Your task to perform on an android device: Add razer kraken to the cart on bestbuy.com, then select checkout. Image 0: 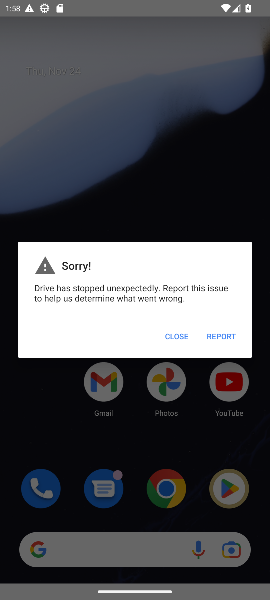
Step 0: press home button
Your task to perform on an android device: Add razer kraken to the cart on bestbuy.com, then select checkout. Image 1: 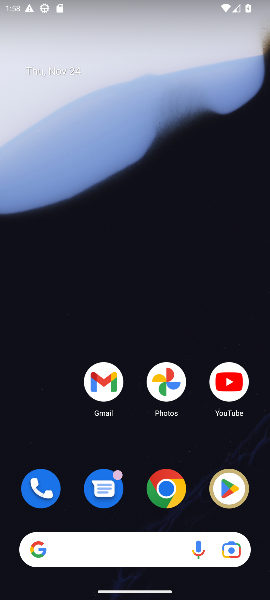
Step 1: click (160, 490)
Your task to perform on an android device: Add razer kraken to the cart on bestbuy.com, then select checkout. Image 2: 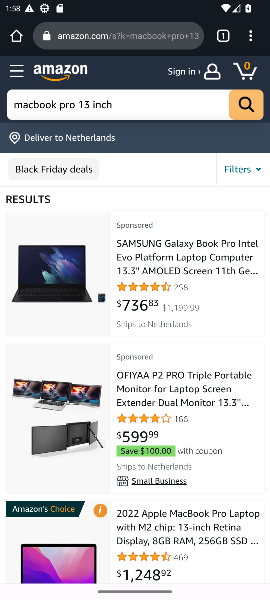
Step 2: click (91, 38)
Your task to perform on an android device: Add razer kraken to the cart on bestbuy.com, then select checkout. Image 3: 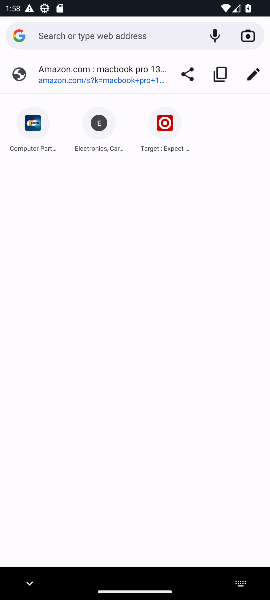
Step 3: type "bestbuy.com"
Your task to perform on an android device: Add razer kraken to the cart on bestbuy.com, then select checkout. Image 4: 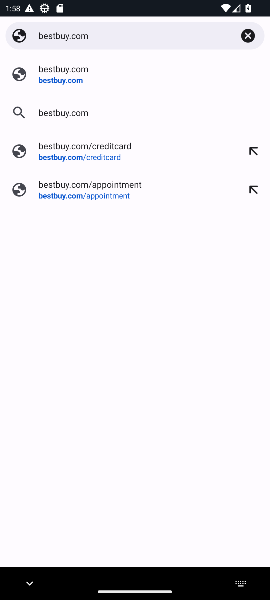
Step 4: click (54, 83)
Your task to perform on an android device: Add razer kraken to the cart on bestbuy.com, then select checkout. Image 5: 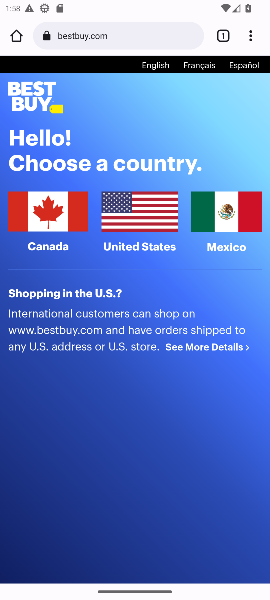
Step 5: click (142, 224)
Your task to perform on an android device: Add razer kraken to the cart on bestbuy.com, then select checkout. Image 6: 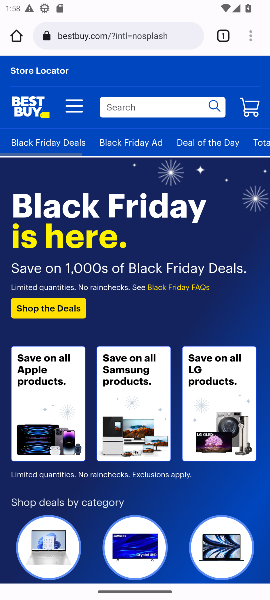
Step 6: click (131, 107)
Your task to perform on an android device: Add razer kraken to the cart on bestbuy.com, then select checkout. Image 7: 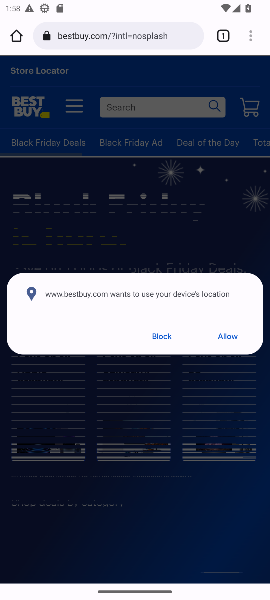
Step 7: click (164, 339)
Your task to perform on an android device: Add razer kraken to the cart on bestbuy.com, then select checkout. Image 8: 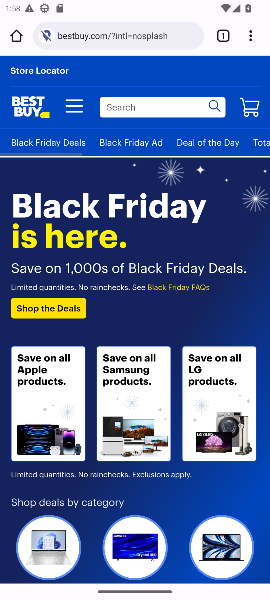
Step 8: click (127, 104)
Your task to perform on an android device: Add razer kraken to the cart on bestbuy.com, then select checkout. Image 9: 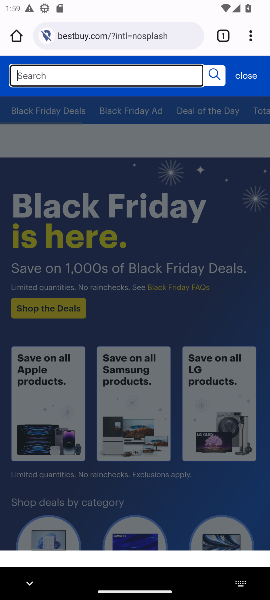
Step 9: type "razer kraken "
Your task to perform on an android device: Add razer kraken to the cart on bestbuy.com, then select checkout. Image 10: 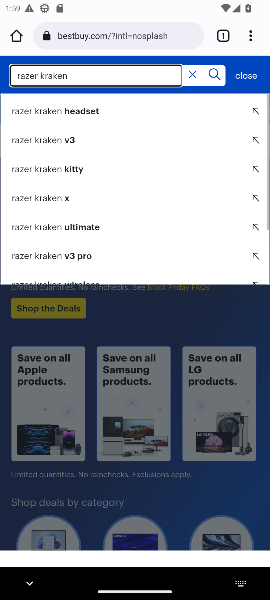
Step 10: click (31, 112)
Your task to perform on an android device: Add razer kraken to the cart on bestbuy.com, then select checkout. Image 11: 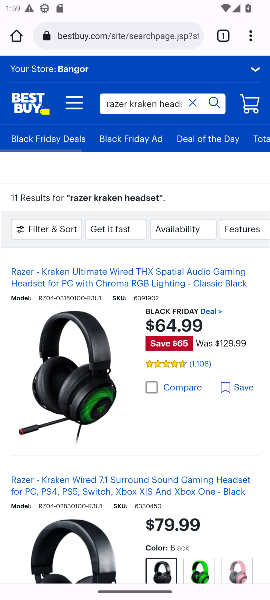
Step 11: drag from (64, 317) to (74, 191)
Your task to perform on an android device: Add razer kraken to the cart on bestbuy.com, then select checkout. Image 12: 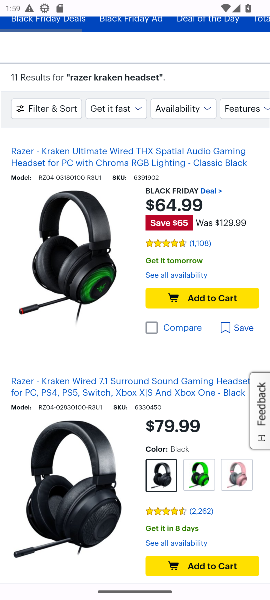
Step 12: click (84, 273)
Your task to perform on an android device: Add razer kraken to the cart on bestbuy.com, then select checkout. Image 13: 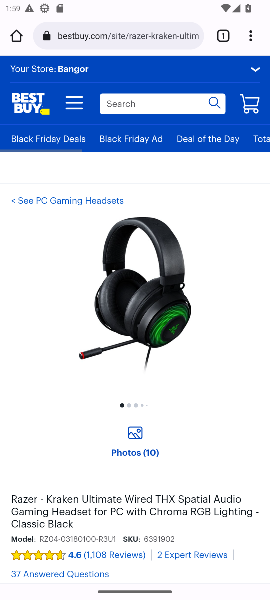
Step 13: drag from (109, 395) to (102, 166)
Your task to perform on an android device: Add razer kraken to the cart on bestbuy.com, then select checkout. Image 14: 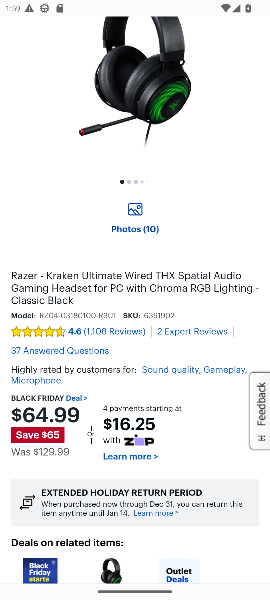
Step 14: drag from (104, 364) to (100, 119)
Your task to perform on an android device: Add razer kraken to the cart on bestbuy.com, then select checkout. Image 15: 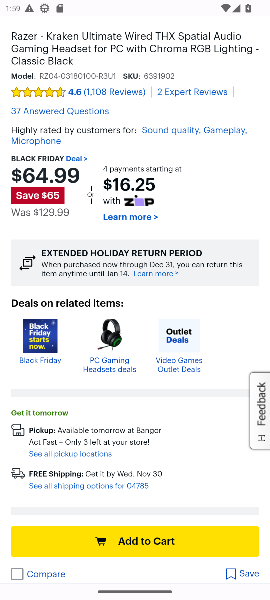
Step 15: drag from (106, 368) to (90, 168)
Your task to perform on an android device: Add razer kraken to the cart on bestbuy.com, then select checkout. Image 16: 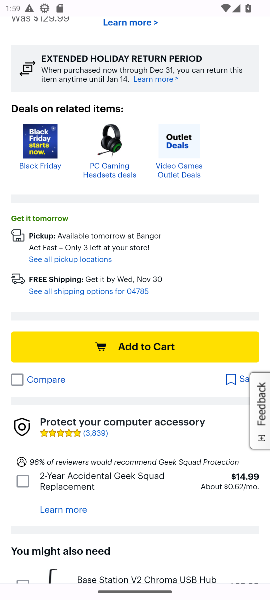
Step 16: click (117, 340)
Your task to perform on an android device: Add razer kraken to the cart on bestbuy.com, then select checkout. Image 17: 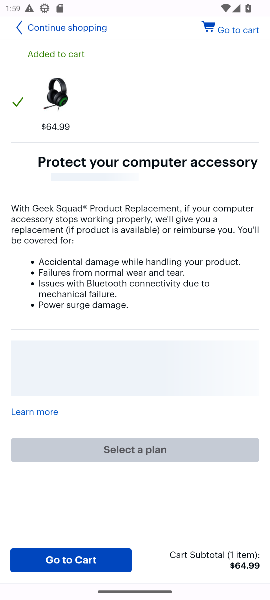
Step 17: click (235, 33)
Your task to perform on an android device: Add razer kraken to the cart on bestbuy.com, then select checkout. Image 18: 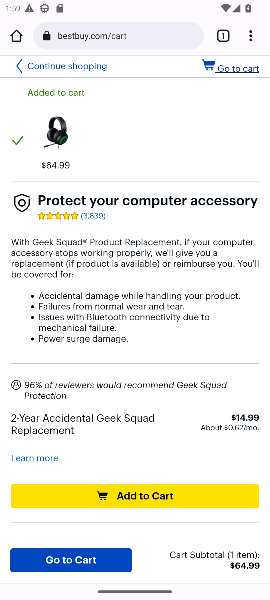
Step 18: click (239, 68)
Your task to perform on an android device: Add razer kraken to the cart on bestbuy.com, then select checkout. Image 19: 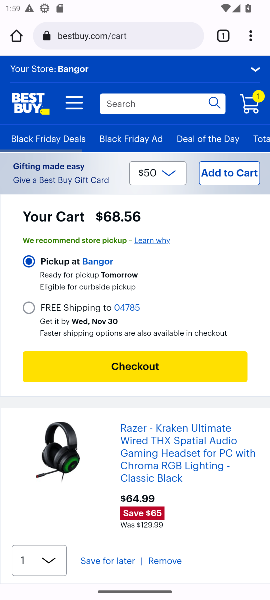
Step 19: click (130, 368)
Your task to perform on an android device: Add razer kraken to the cart on bestbuy.com, then select checkout. Image 20: 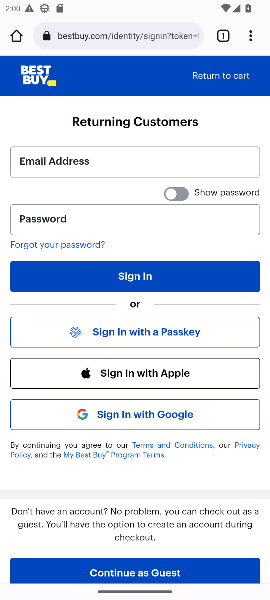
Step 20: task complete